Your task to perform on an android device: Open Google Chrome and click the shortcut for Amazon.com Image 0: 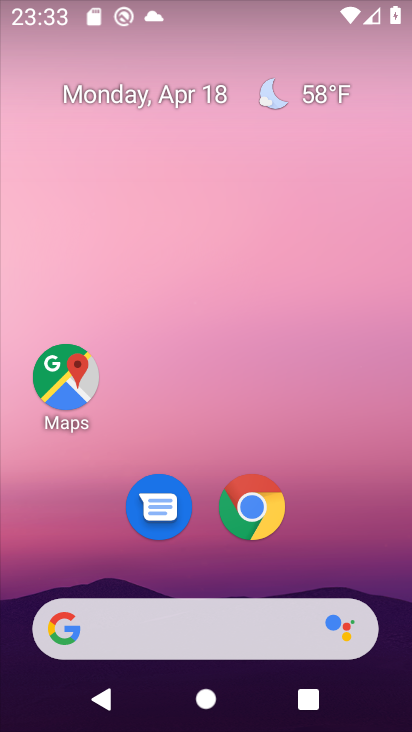
Step 0: click (233, 514)
Your task to perform on an android device: Open Google Chrome and click the shortcut for Amazon.com Image 1: 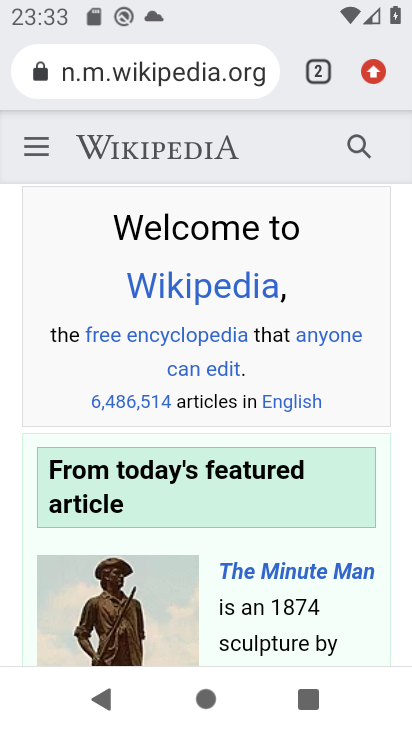
Step 1: click (316, 69)
Your task to perform on an android device: Open Google Chrome and click the shortcut for Amazon.com Image 2: 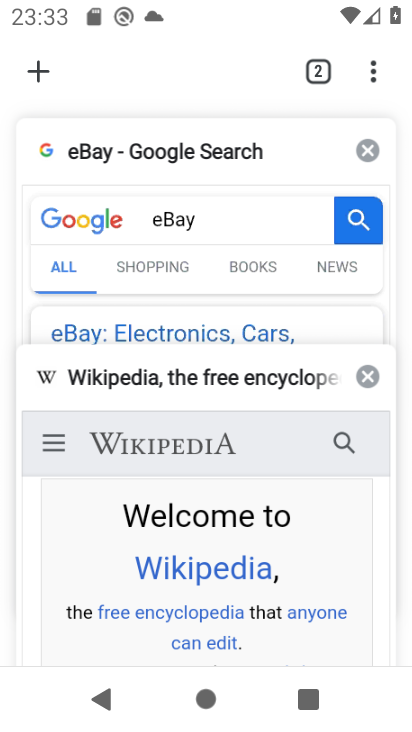
Step 2: click (41, 63)
Your task to perform on an android device: Open Google Chrome and click the shortcut for Amazon.com Image 3: 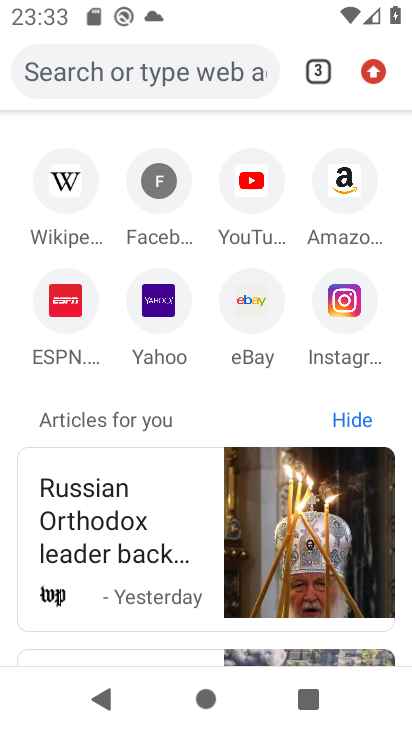
Step 3: click (345, 196)
Your task to perform on an android device: Open Google Chrome and click the shortcut for Amazon.com Image 4: 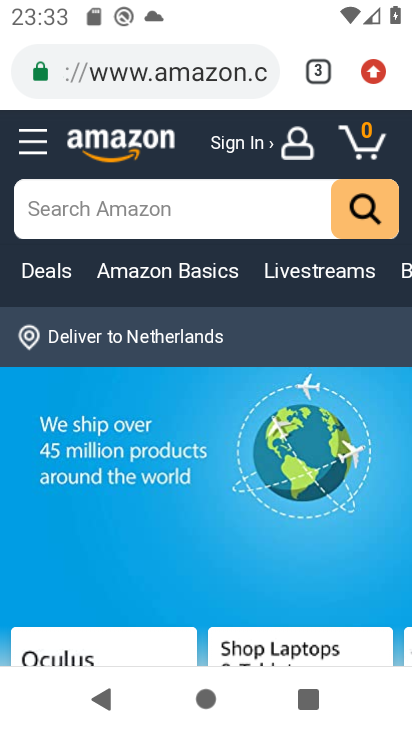
Step 4: task complete